Your task to perform on an android device: turn off notifications settings in the gmail app Image 0: 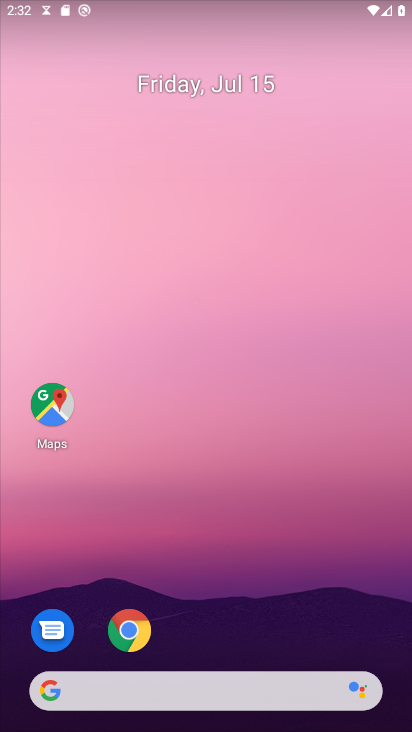
Step 0: drag from (351, 585) to (408, 39)
Your task to perform on an android device: turn off notifications settings in the gmail app Image 1: 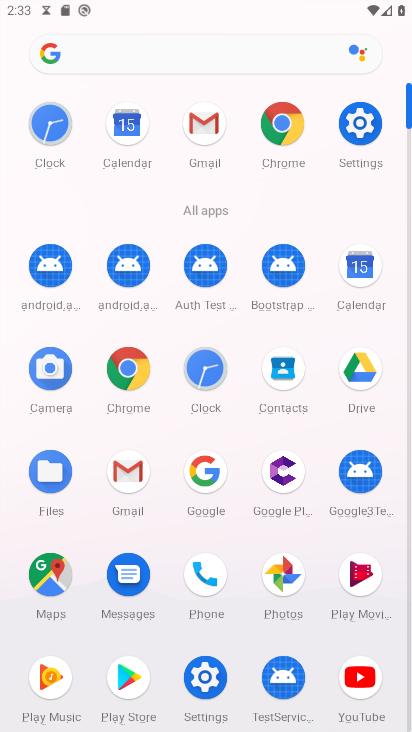
Step 1: click (205, 114)
Your task to perform on an android device: turn off notifications settings in the gmail app Image 2: 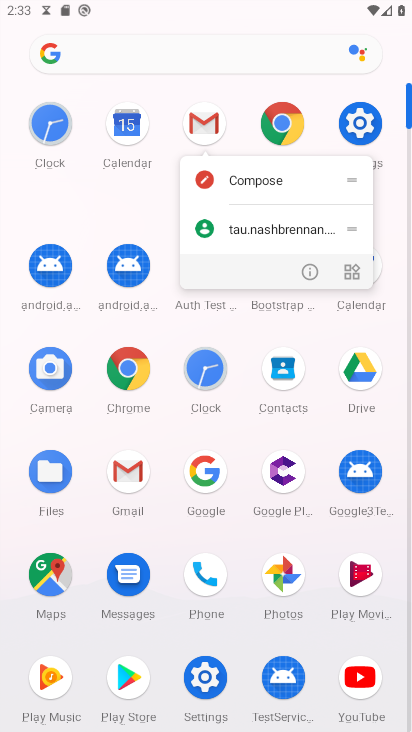
Step 2: click (204, 114)
Your task to perform on an android device: turn off notifications settings in the gmail app Image 3: 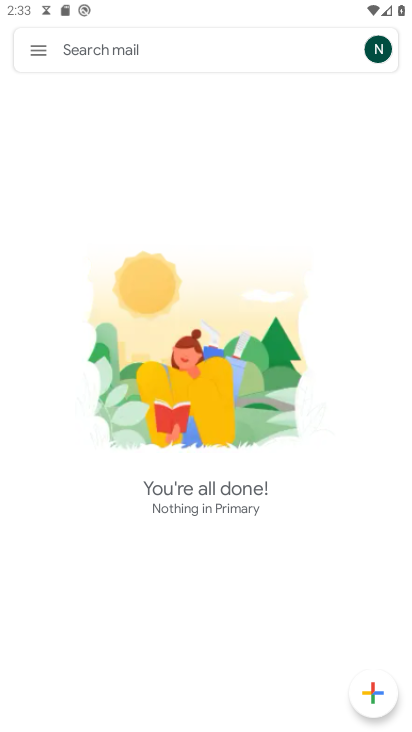
Step 3: click (51, 50)
Your task to perform on an android device: turn off notifications settings in the gmail app Image 4: 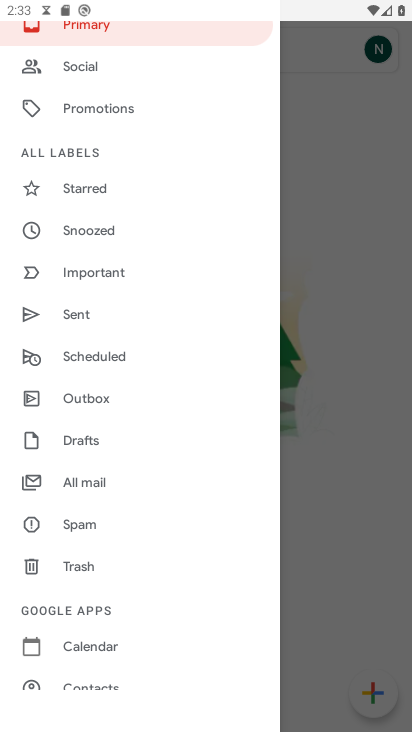
Step 4: drag from (112, 558) to (156, 153)
Your task to perform on an android device: turn off notifications settings in the gmail app Image 5: 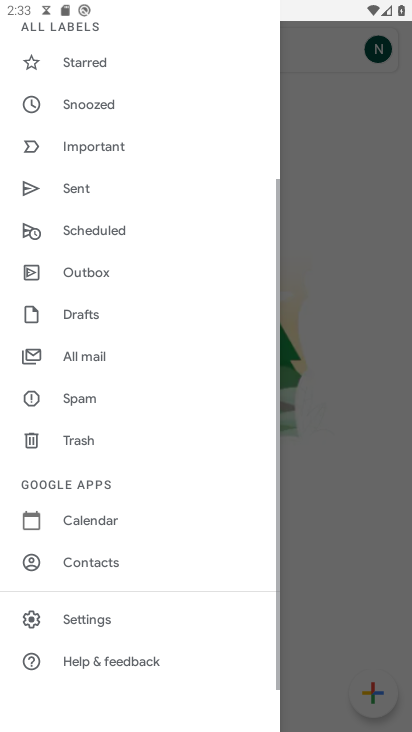
Step 5: click (66, 619)
Your task to perform on an android device: turn off notifications settings in the gmail app Image 6: 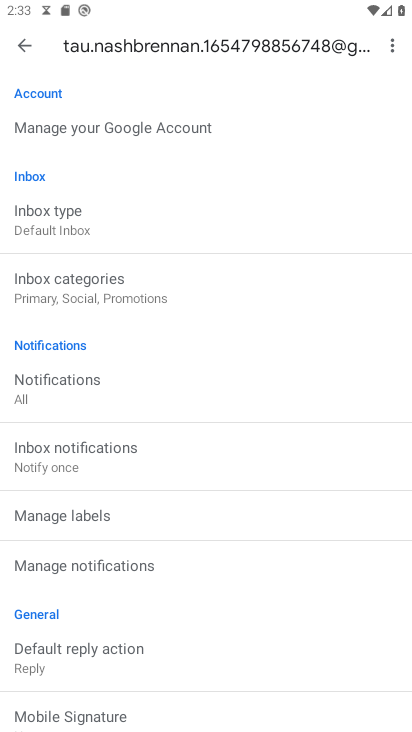
Step 6: drag from (162, 169) to (129, 543)
Your task to perform on an android device: turn off notifications settings in the gmail app Image 7: 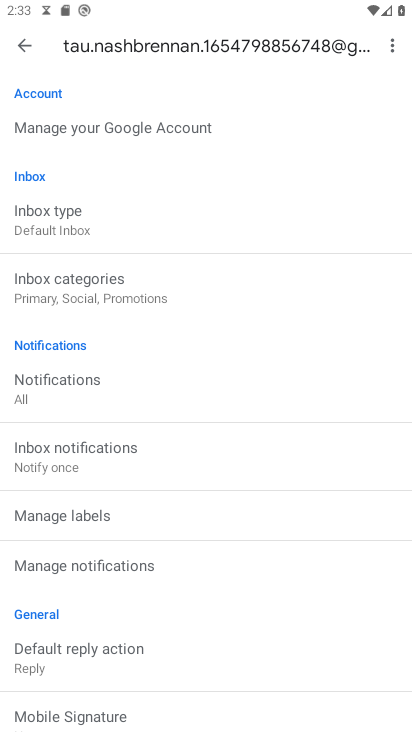
Step 7: click (52, 383)
Your task to perform on an android device: turn off notifications settings in the gmail app Image 8: 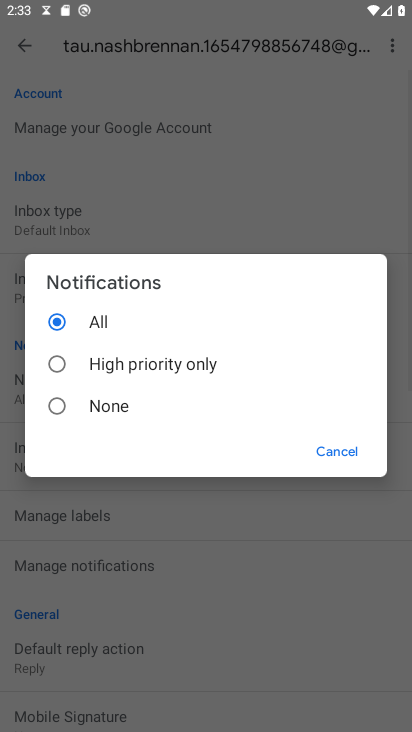
Step 8: click (67, 404)
Your task to perform on an android device: turn off notifications settings in the gmail app Image 9: 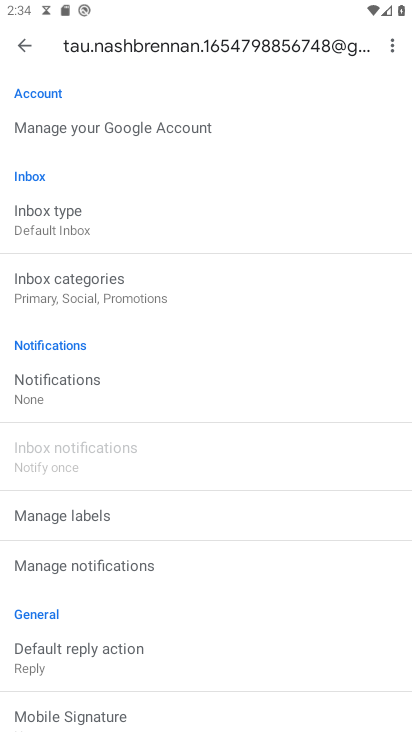
Step 9: task complete